Your task to perform on an android device: Clear the shopping cart on target. Add dell alienware to the cart on target, then select checkout. Image 0: 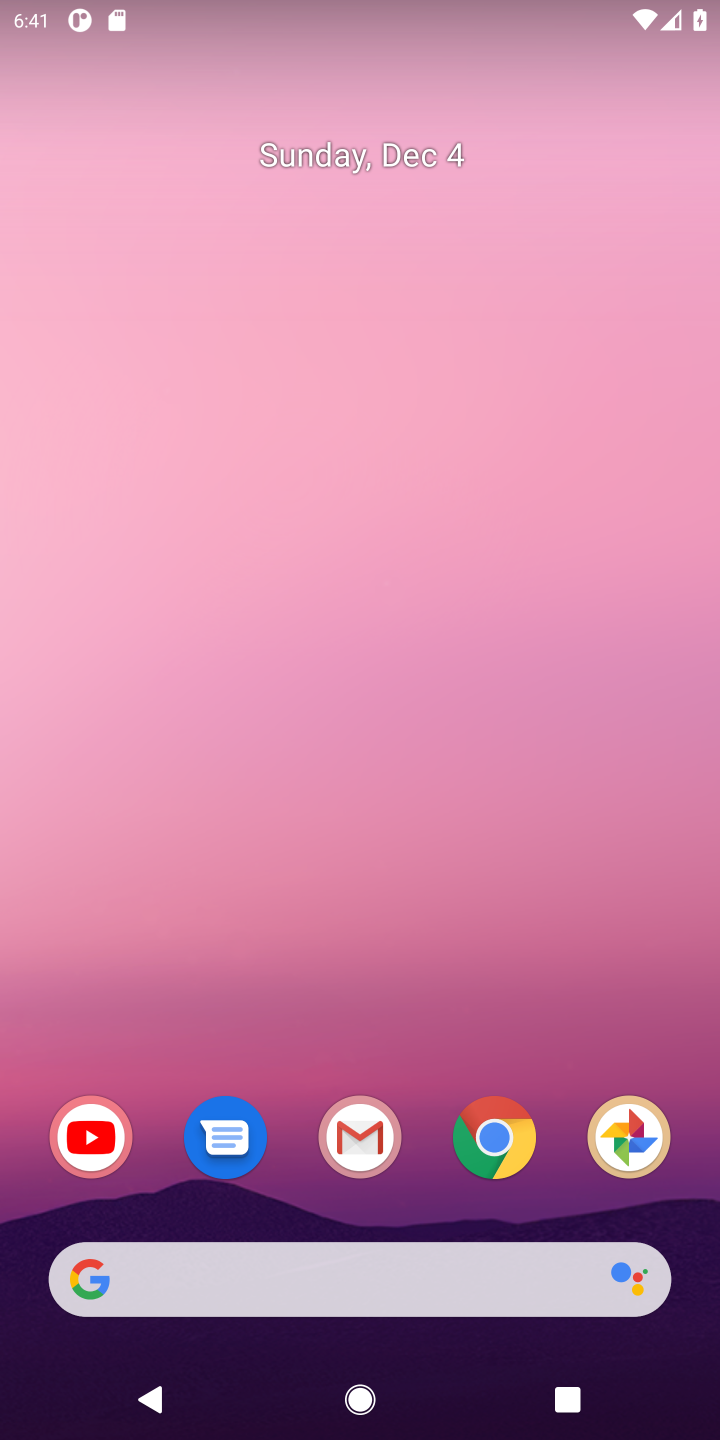
Step 0: click (490, 1136)
Your task to perform on an android device: Clear the shopping cart on target. Add dell alienware to the cart on target, then select checkout. Image 1: 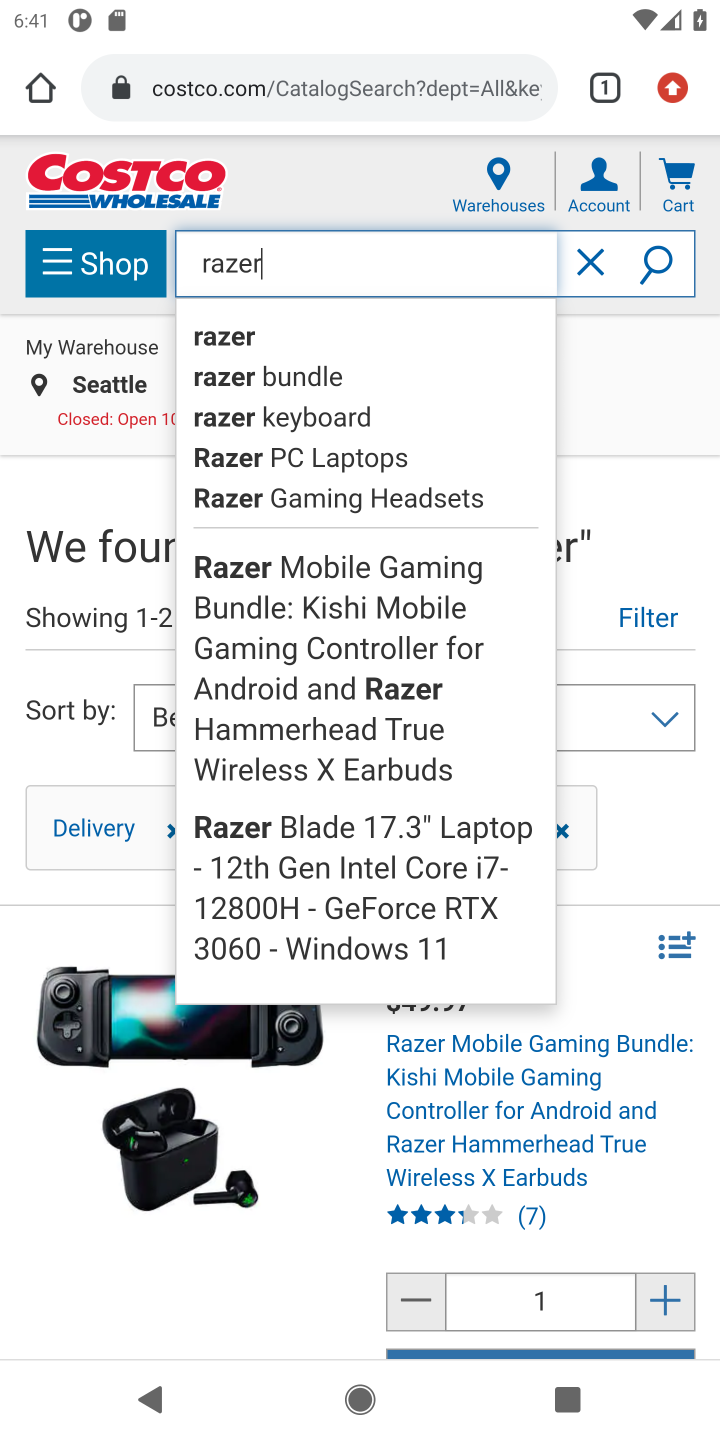
Step 1: click (419, 56)
Your task to perform on an android device: Clear the shopping cart on target. Add dell alienware to the cart on target, then select checkout. Image 2: 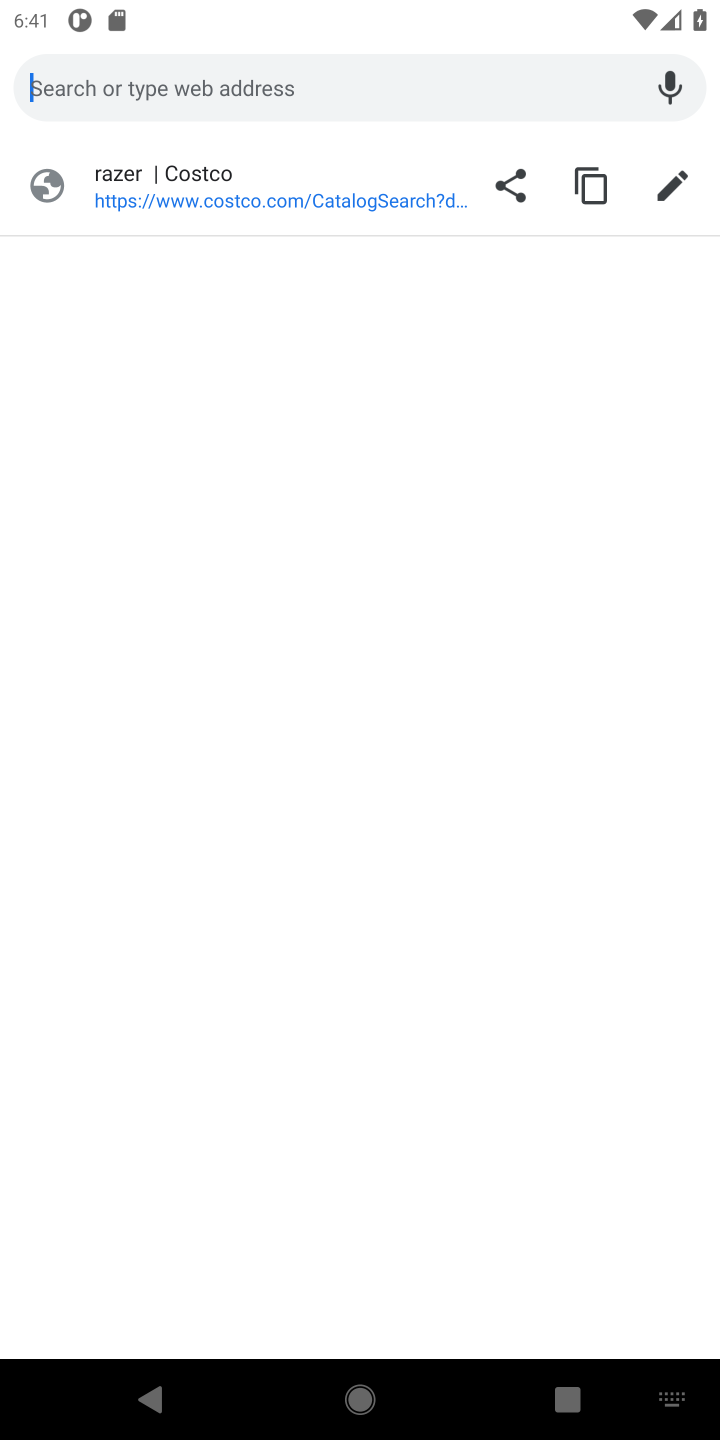
Step 2: type "target"
Your task to perform on an android device: Clear the shopping cart on target. Add dell alienware to the cart on target, then select checkout. Image 3: 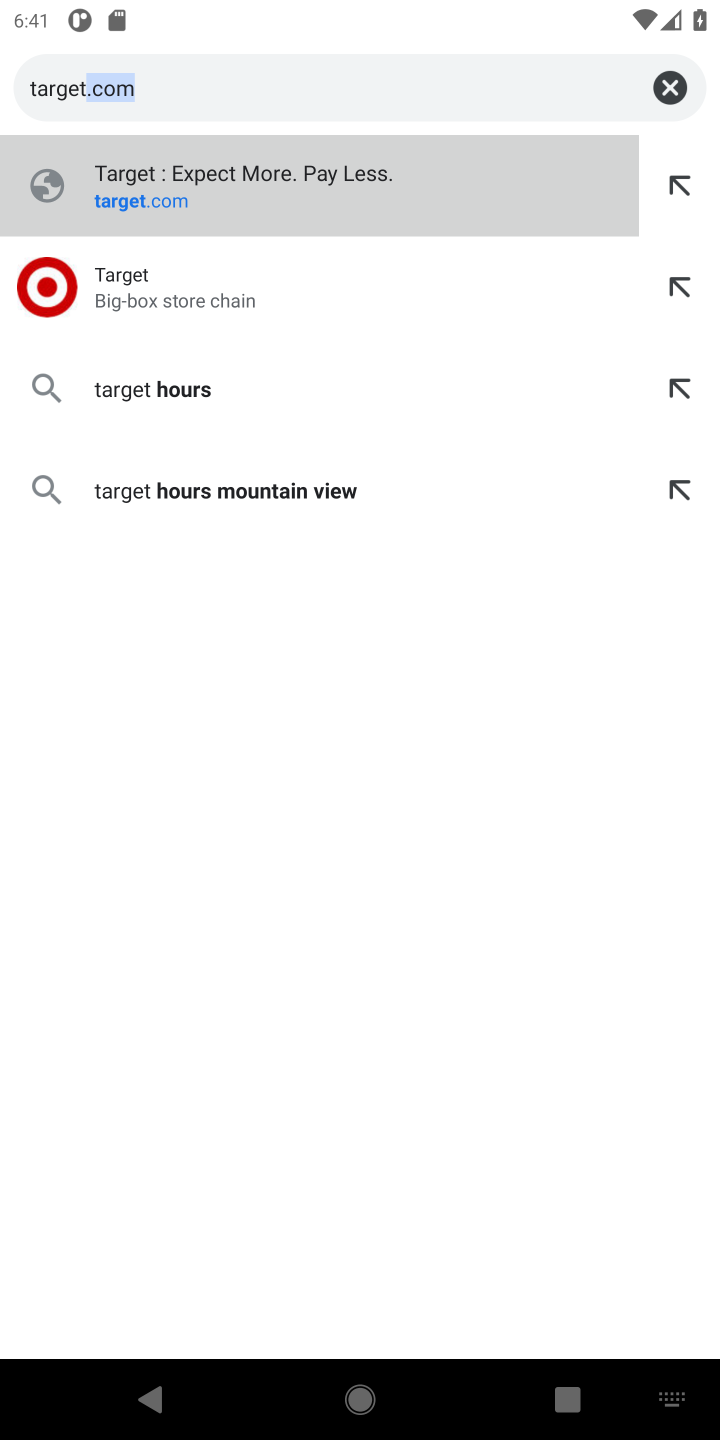
Step 3: click (162, 193)
Your task to perform on an android device: Clear the shopping cart on target. Add dell alienware to the cart on target, then select checkout. Image 4: 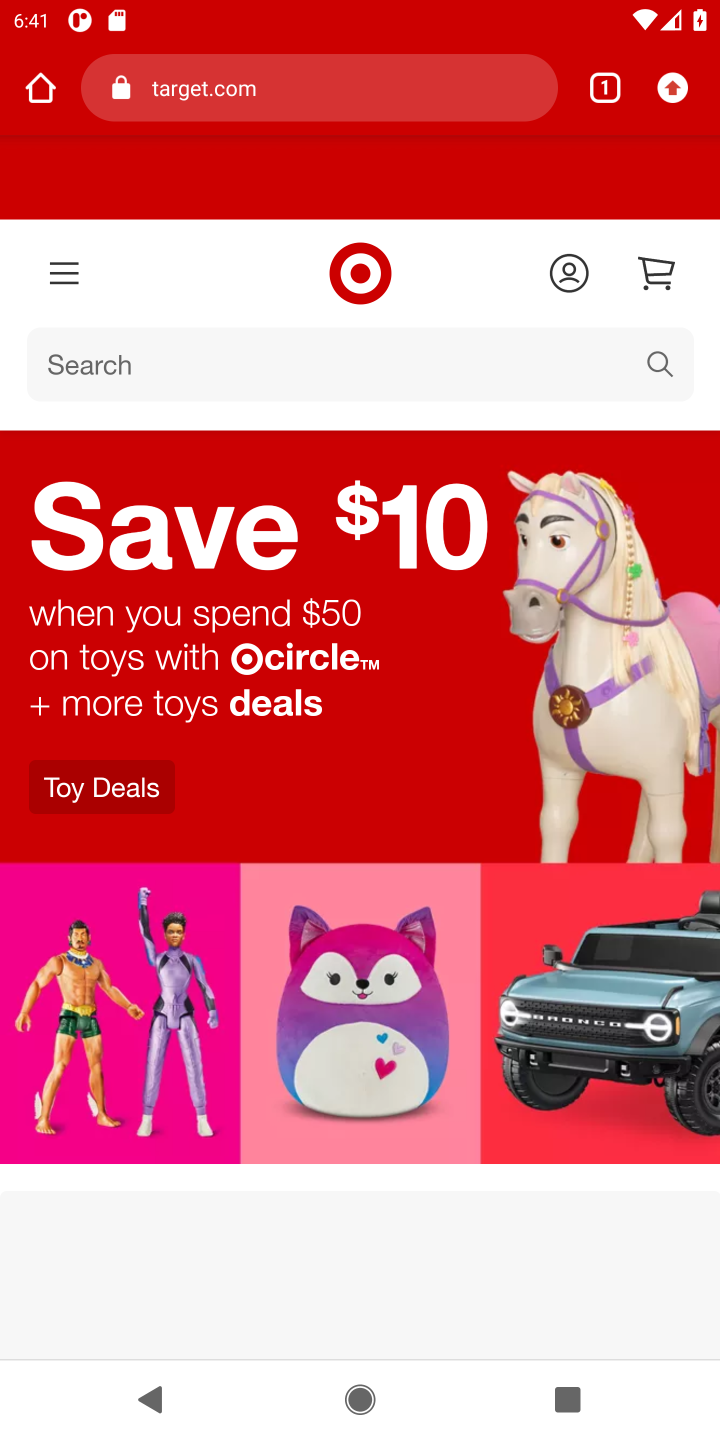
Step 4: click (645, 273)
Your task to perform on an android device: Clear the shopping cart on target. Add dell alienware to the cart on target, then select checkout. Image 5: 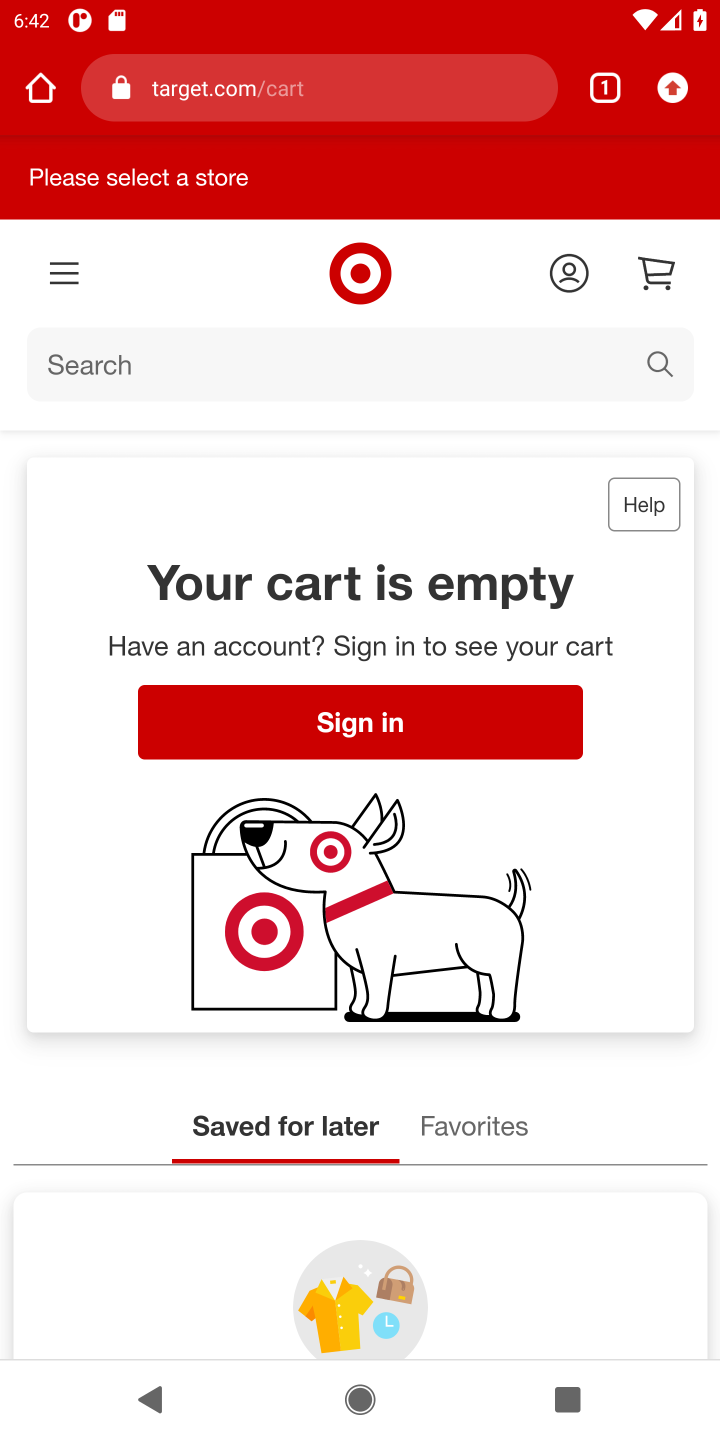
Step 5: click (138, 351)
Your task to perform on an android device: Clear the shopping cart on target. Add dell alienware to the cart on target, then select checkout. Image 6: 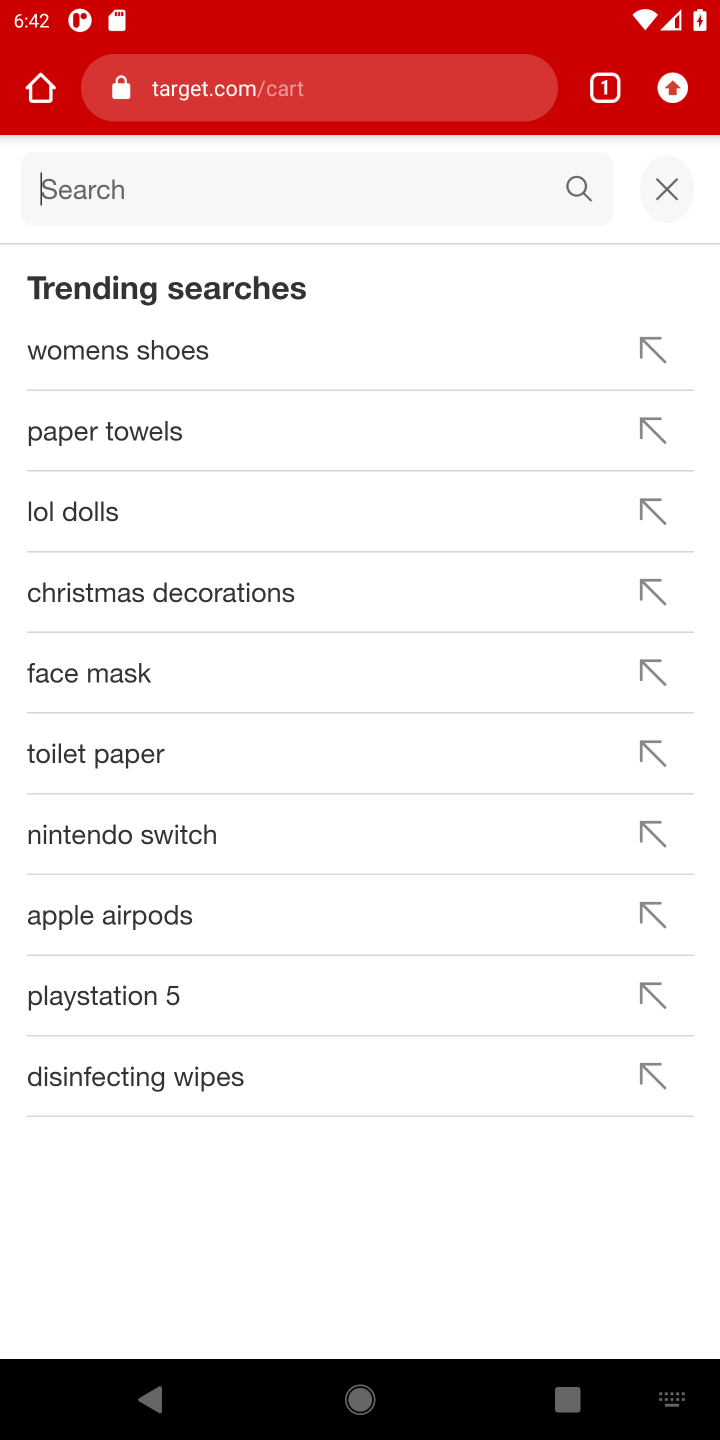
Step 6: type "dell alienware"
Your task to perform on an android device: Clear the shopping cart on target. Add dell alienware to the cart on target, then select checkout. Image 7: 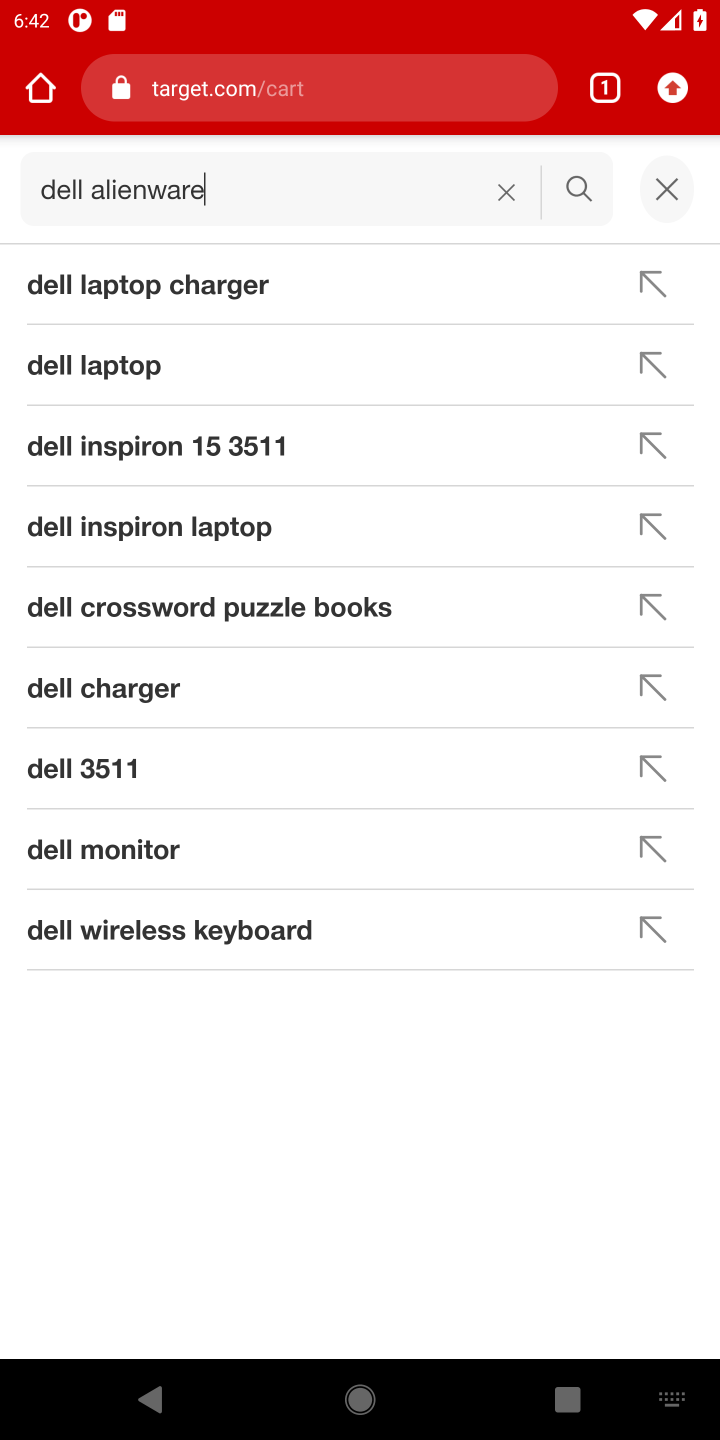
Step 7: click (573, 187)
Your task to perform on an android device: Clear the shopping cart on target. Add dell alienware to the cart on target, then select checkout. Image 8: 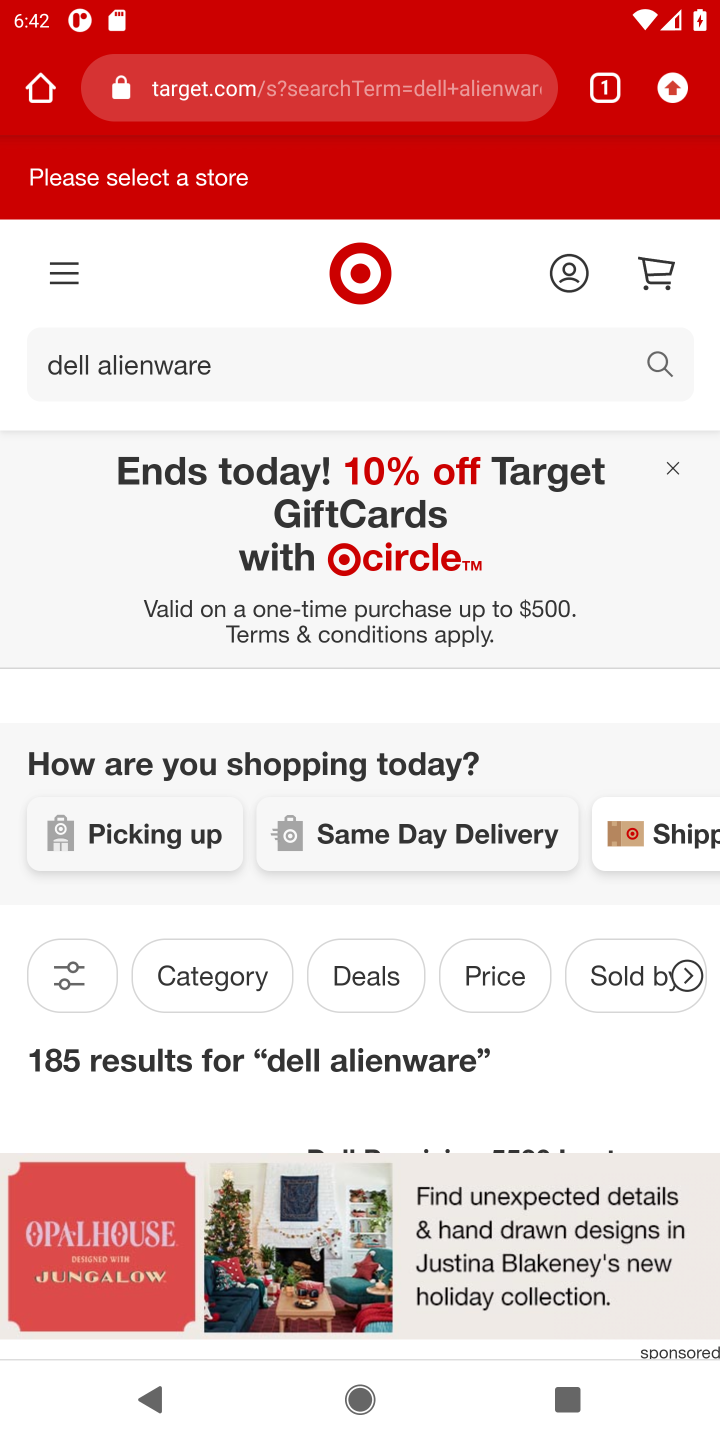
Step 8: drag from (510, 660) to (486, 263)
Your task to perform on an android device: Clear the shopping cart on target. Add dell alienware to the cart on target, then select checkout. Image 9: 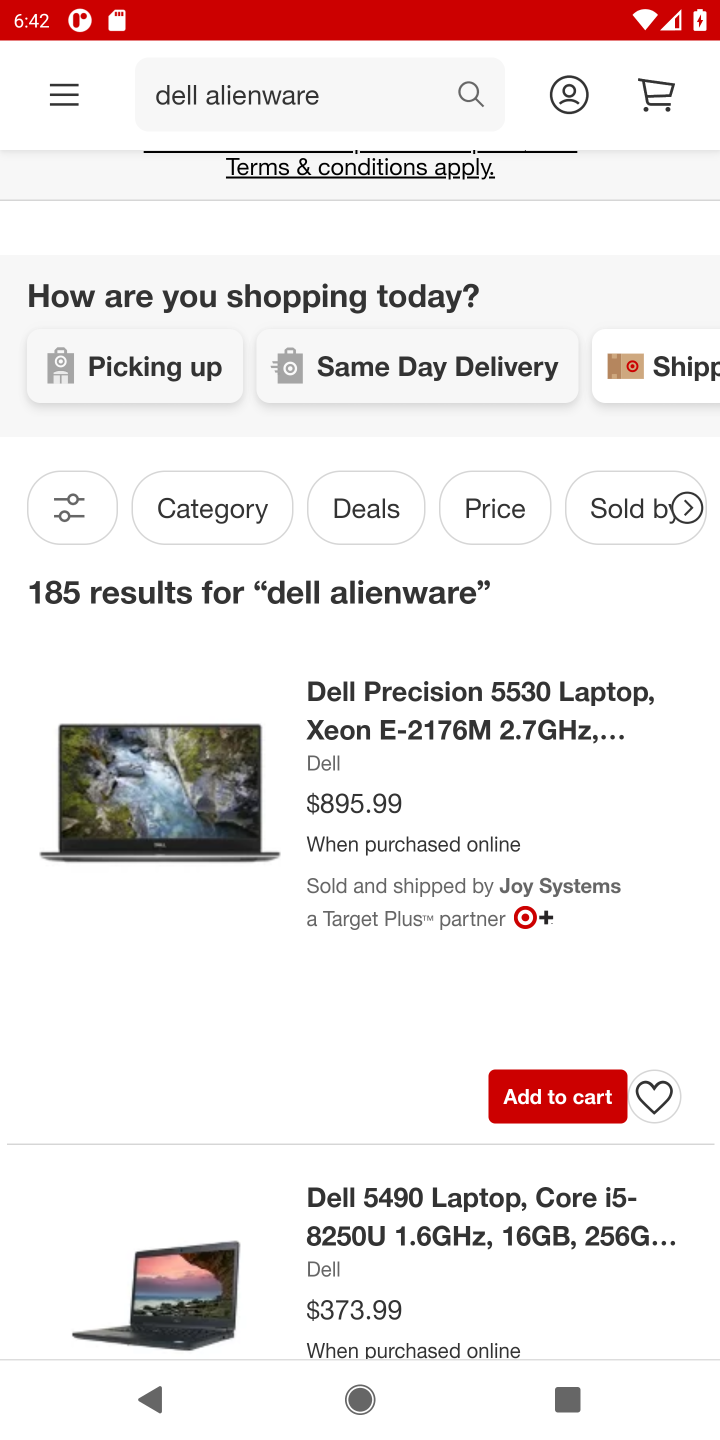
Step 9: drag from (355, 1137) to (353, 863)
Your task to perform on an android device: Clear the shopping cart on target. Add dell alienware to the cart on target, then select checkout. Image 10: 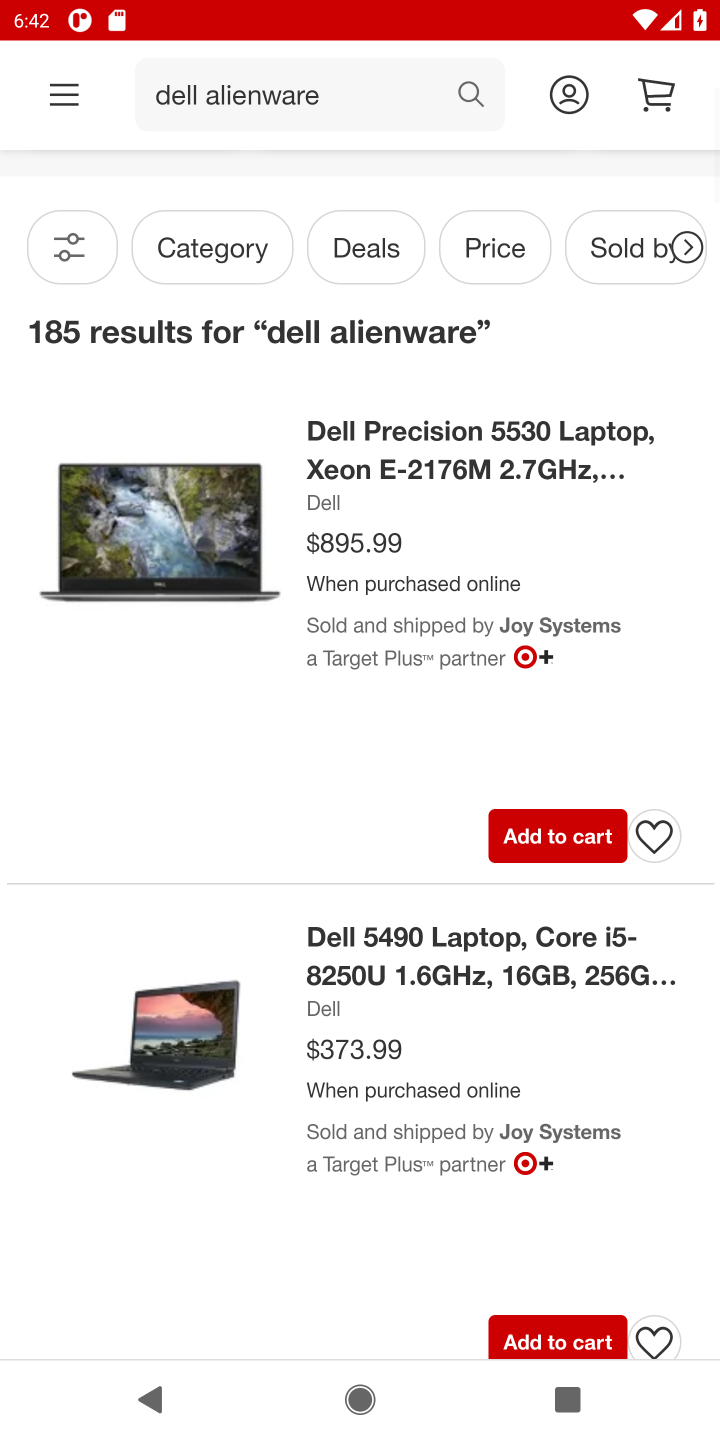
Step 10: drag from (294, 1253) to (321, 759)
Your task to perform on an android device: Clear the shopping cart on target. Add dell alienware to the cart on target, then select checkout. Image 11: 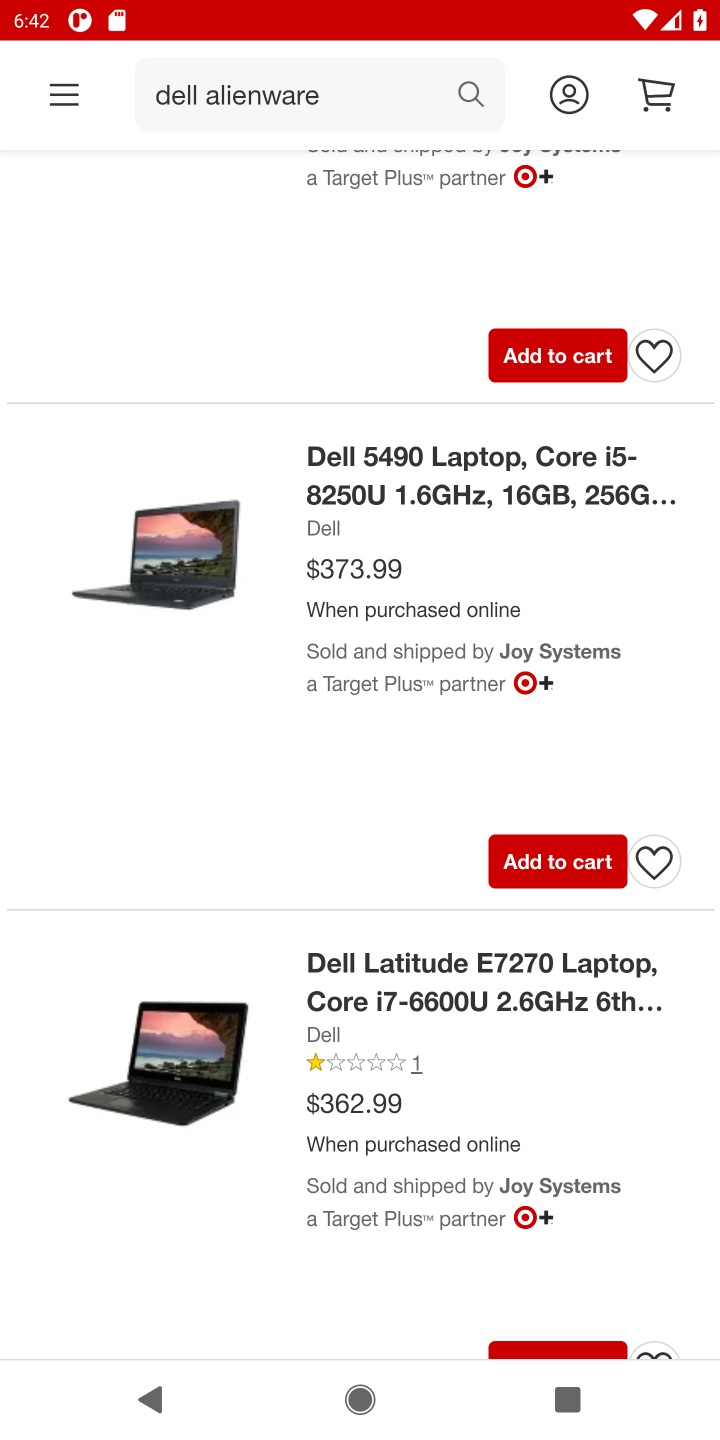
Step 11: drag from (296, 1261) to (325, 480)
Your task to perform on an android device: Clear the shopping cart on target. Add dell alienware to the cart on target, then select checkout. Image 12: 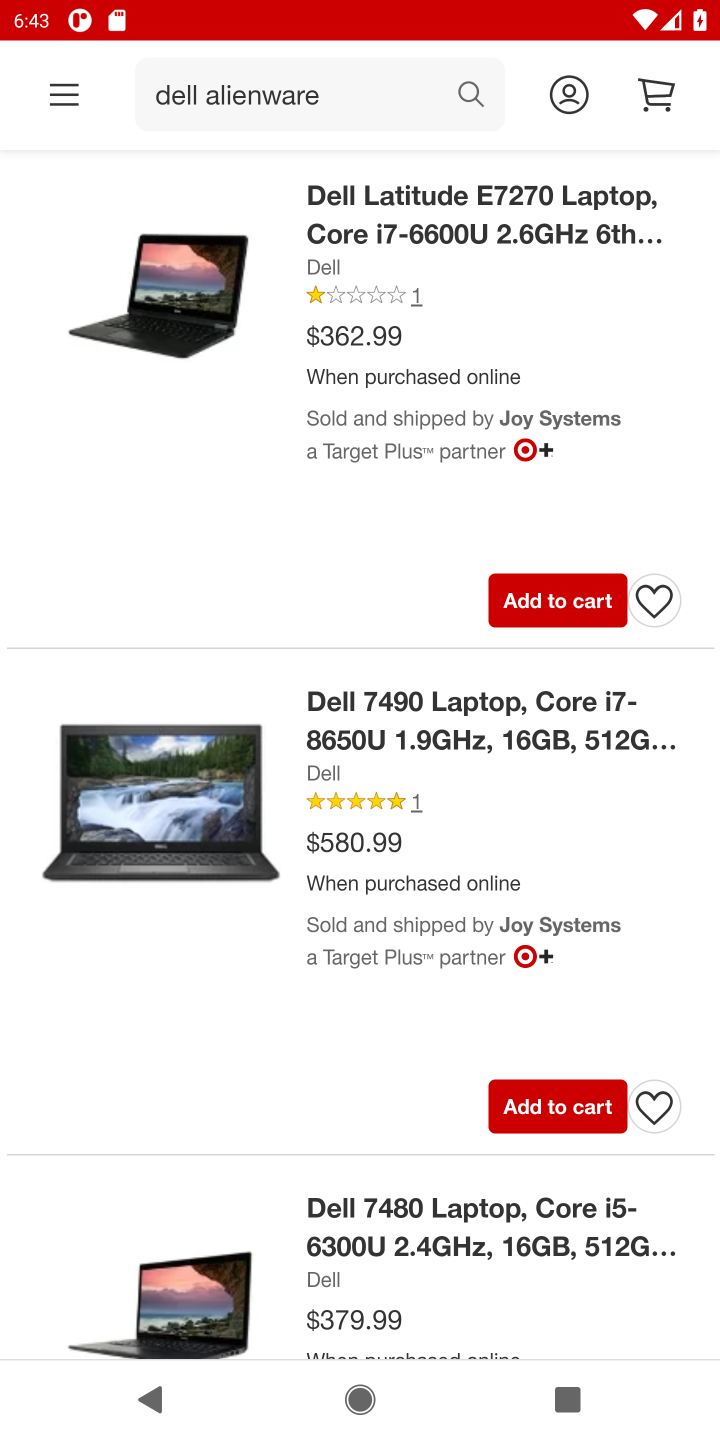
Step 12: drag from (382, 494) to (401, 1122)
Your task to perform on an android device: Clear the shopping cart on target. Add dell alienware to the cart on target, then select checkout. Image 13: 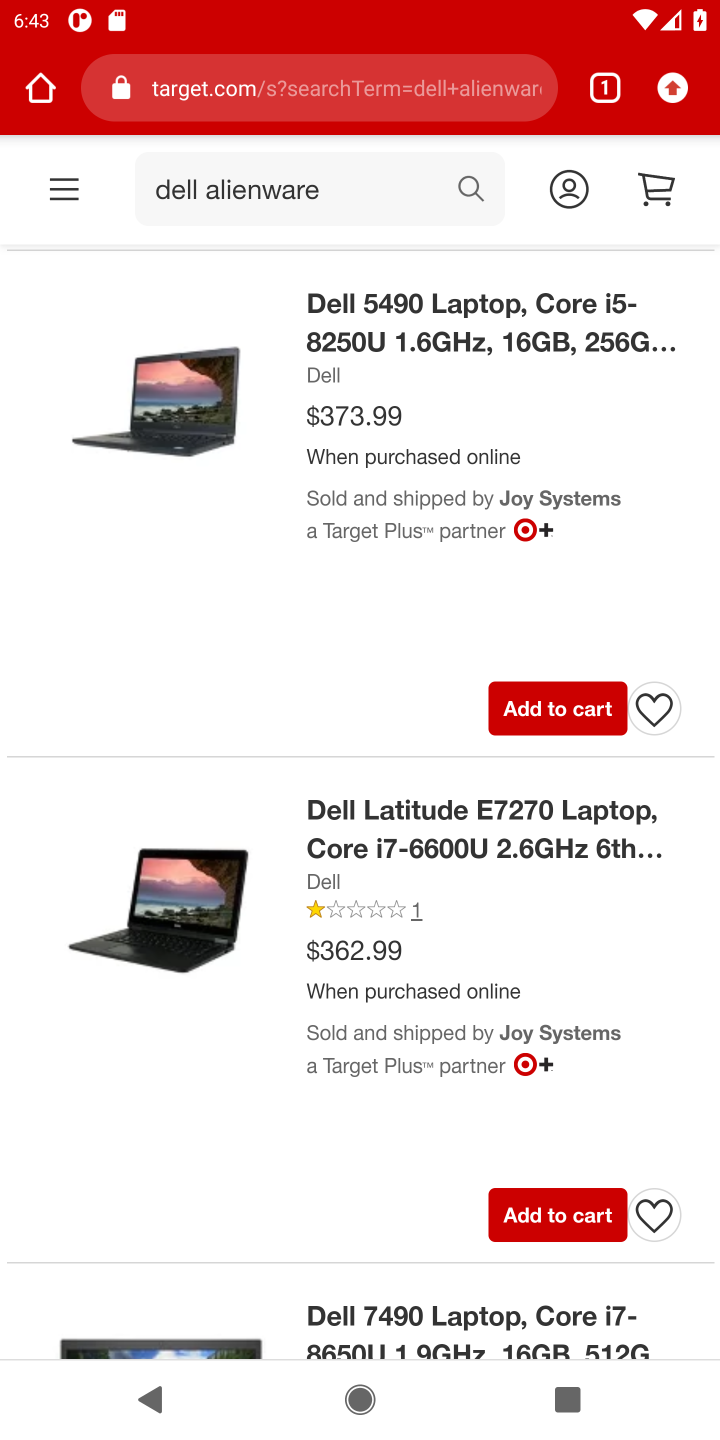
Step 13: drag from (303, 496) to (335, 1123)
Your task to perform on an android device: Clear the shopping cart on target. Add dell alienware to the cart on target, then select checkout. Image 14: 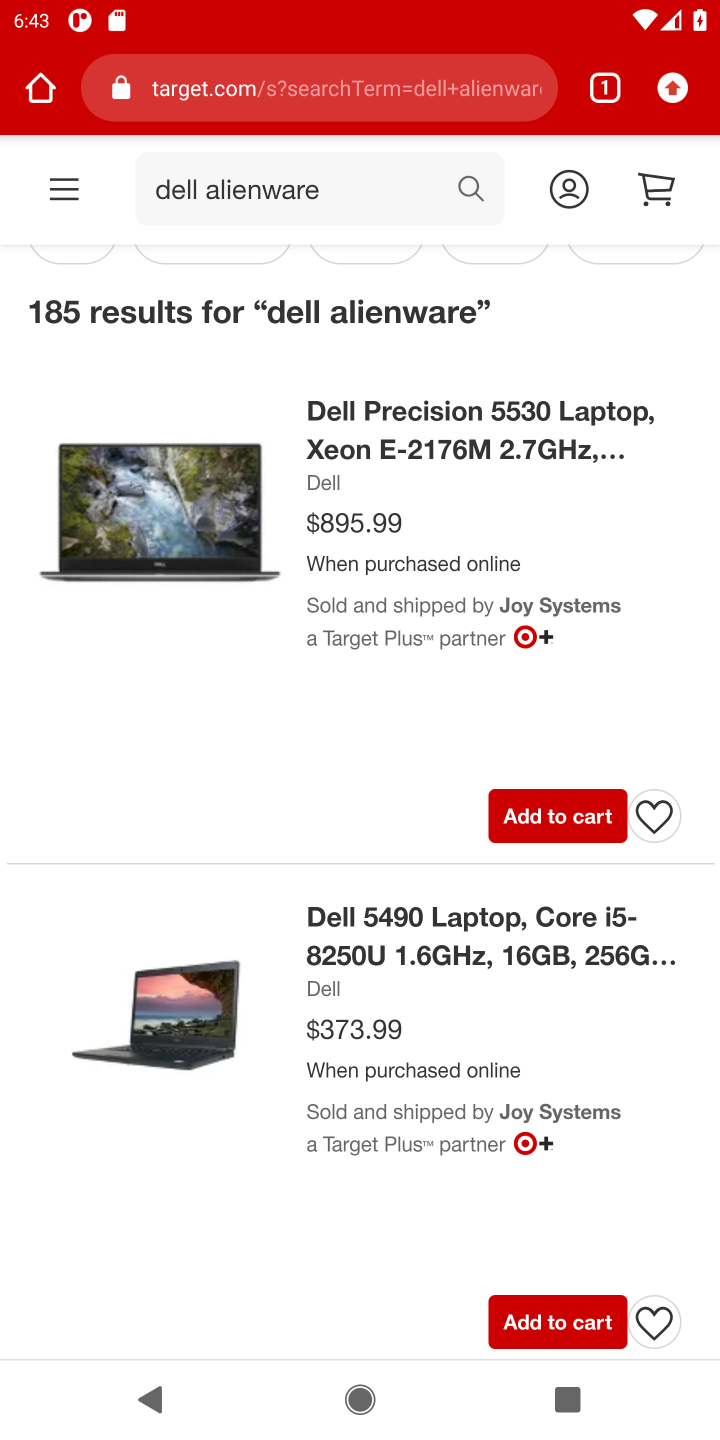
Step 14: click (535, 813)
Your task to perform on an android device: Clear the shopping cart on target. Add dell alienware to the cart on target, then select checkout. Image 15: 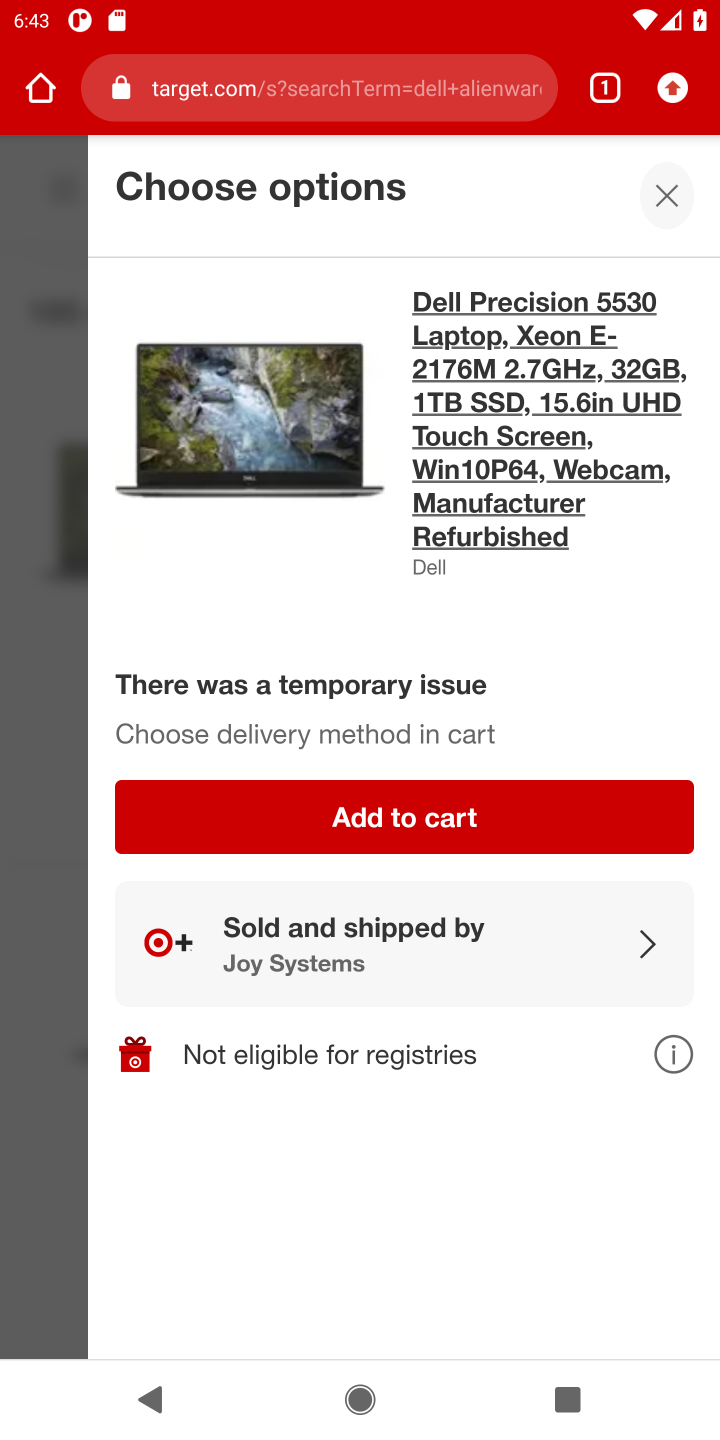
Step 15: click (392, 814)
Your task to perform on an android device: Clear the shopping cart on target. Add dell alienware to the cart on target, then select checkout. Image 16: 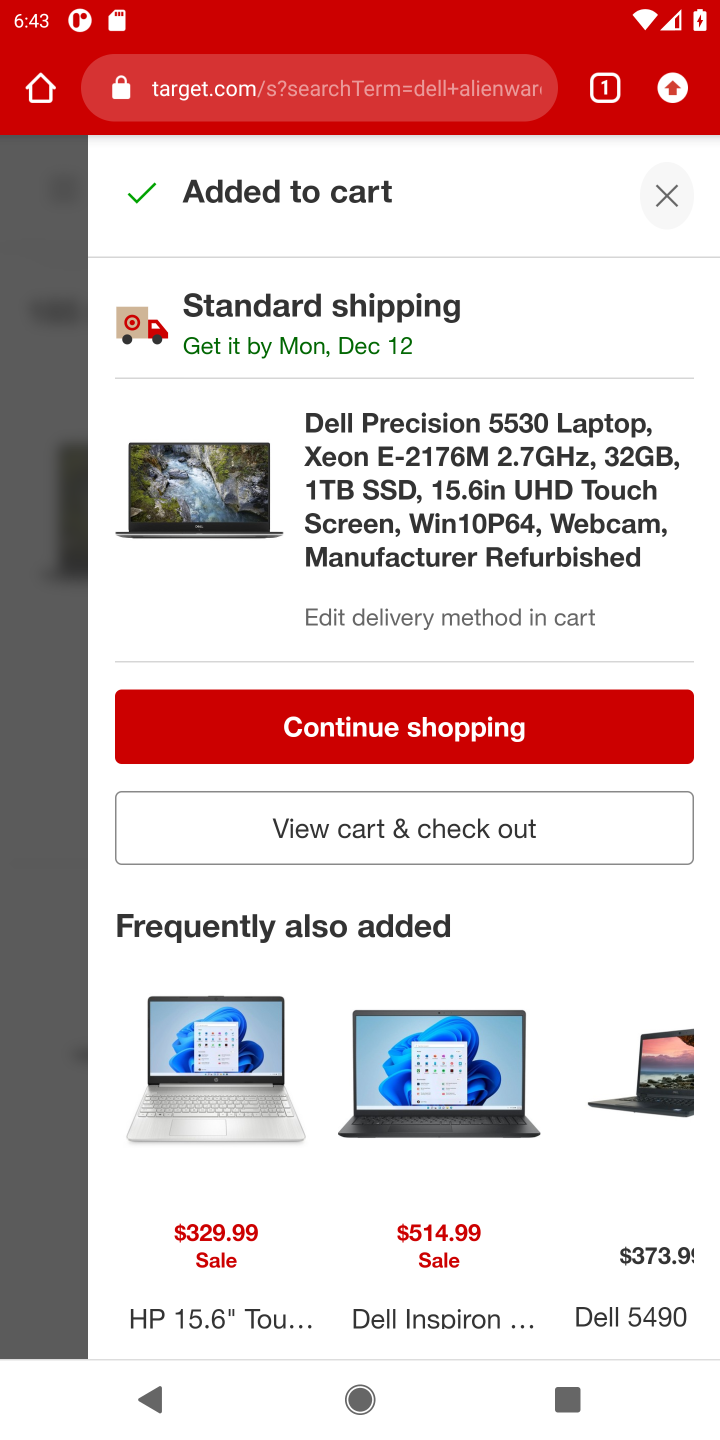
Step 16: click (446, 824)
Your task to perform on an android device: Clear the shopping cart on target. Add dell alienware to the cart on target, then select checkout. Image 17: 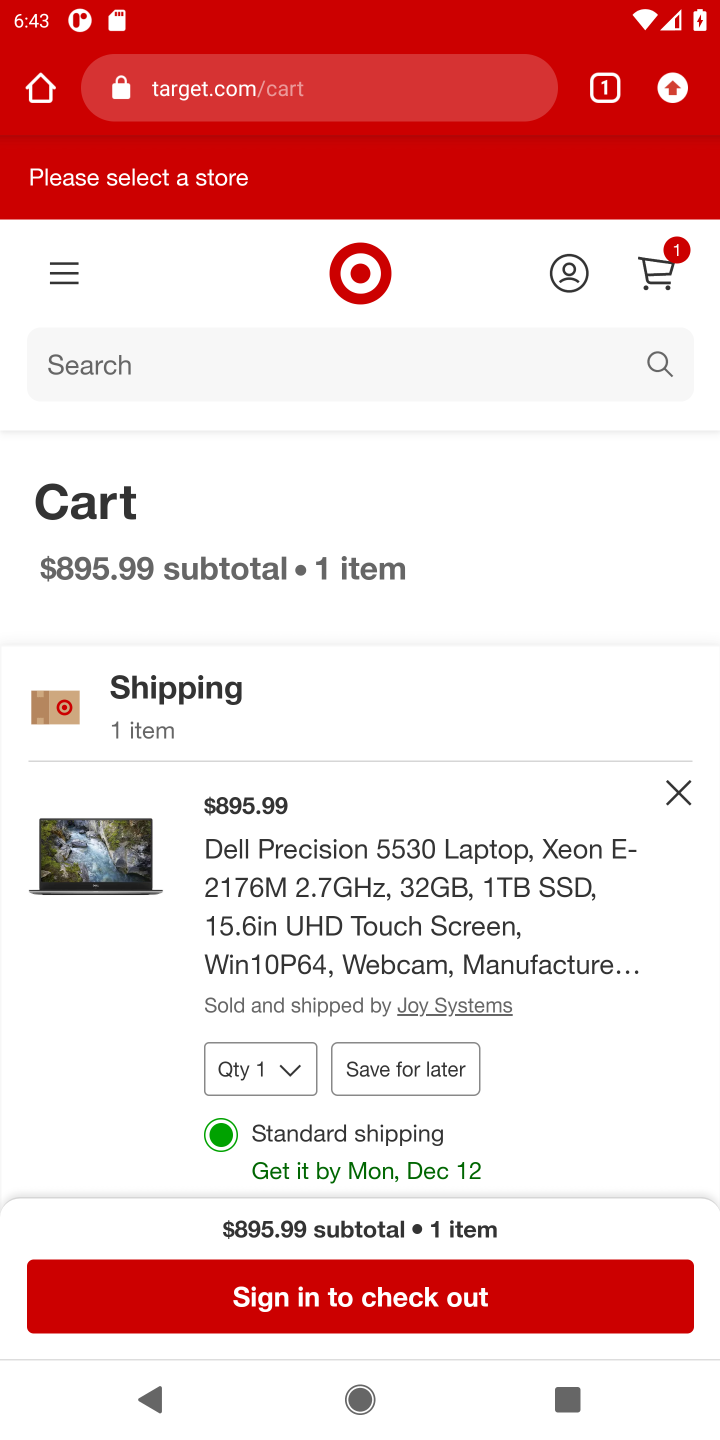
Step 17: click (394, 1291)
Your task to perform on an android device: Clear the shopping cart on target. Add dell alienware to the cart on target, then select checkout. Image 18: 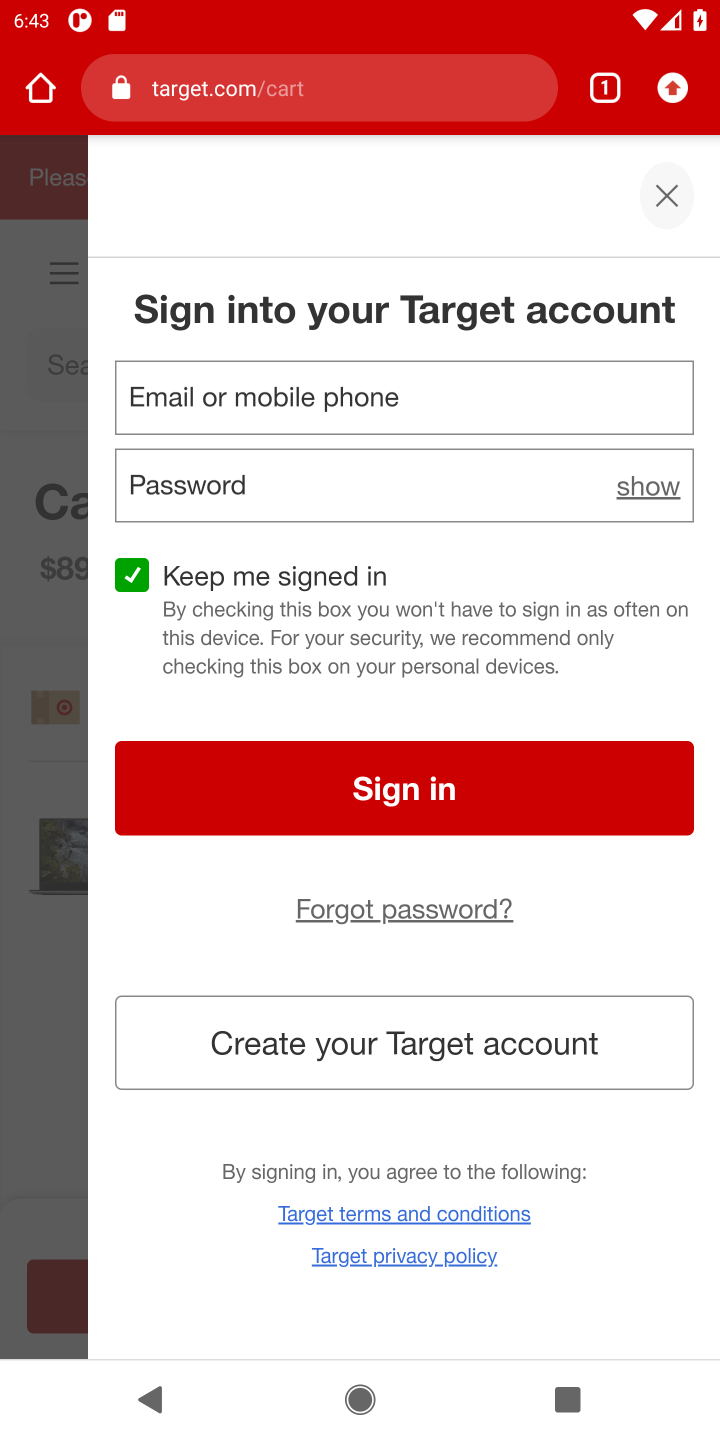
Step 18: task complete